Your task to perform on an android device: toggle sleep mode Image 0: 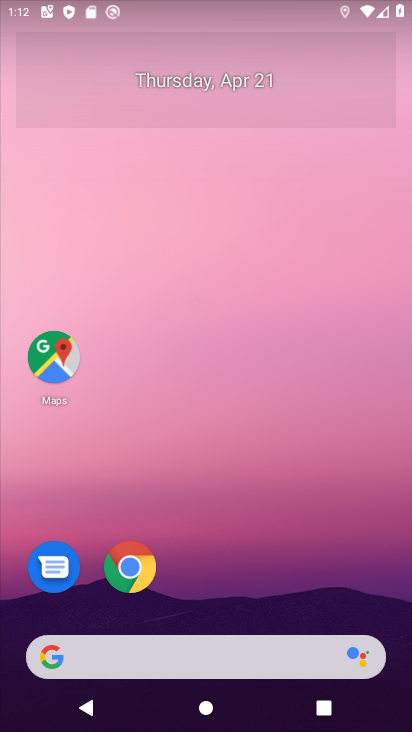
Step 0: drag from (238, 427) to (281, 92)
Your task to perform on an android device: toggle sleep mode Image 1: 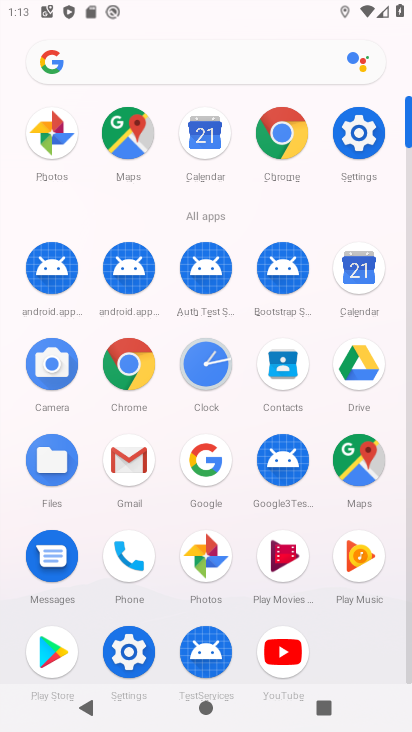
Step 1: click (358, 123)
Your task to perform on an android device: toggle sleep mode Image 2: 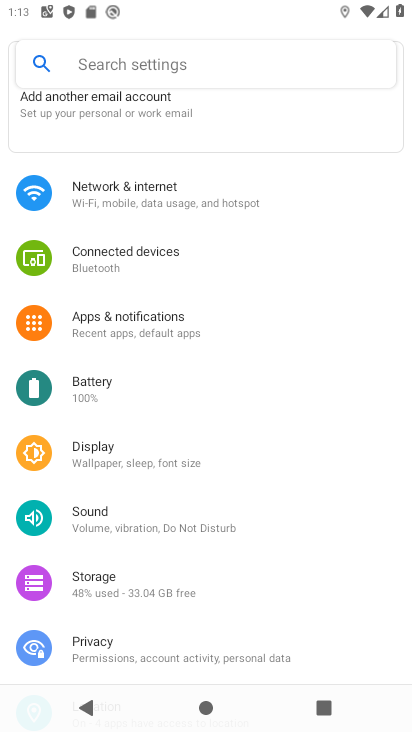
Step 2: click (150, 69)
Your task to perform on an android device: toggle sleep mode Image 3: 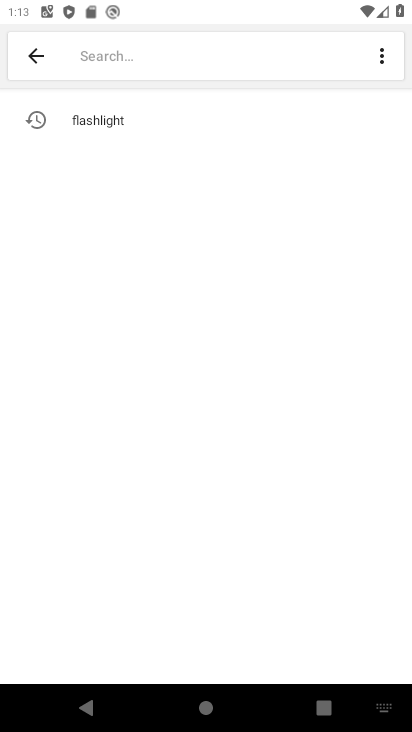
Step 3: type "sleep mode"
Your task to perform on an android device: toggle sleep mode Image 4: 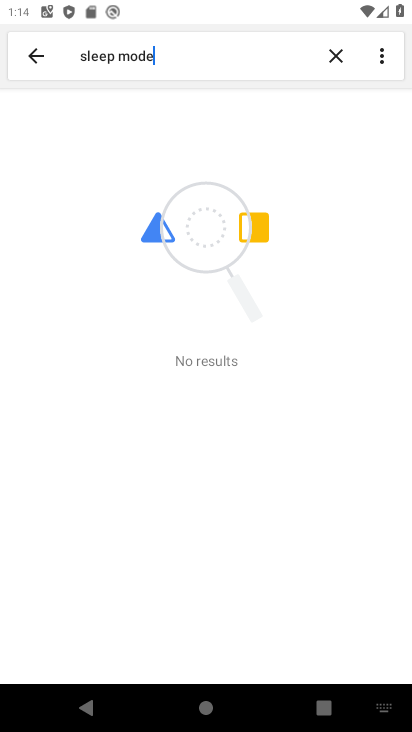
Step 4: task complete